Your task to perform on an android device: see creations saved in the google photos Image 0: 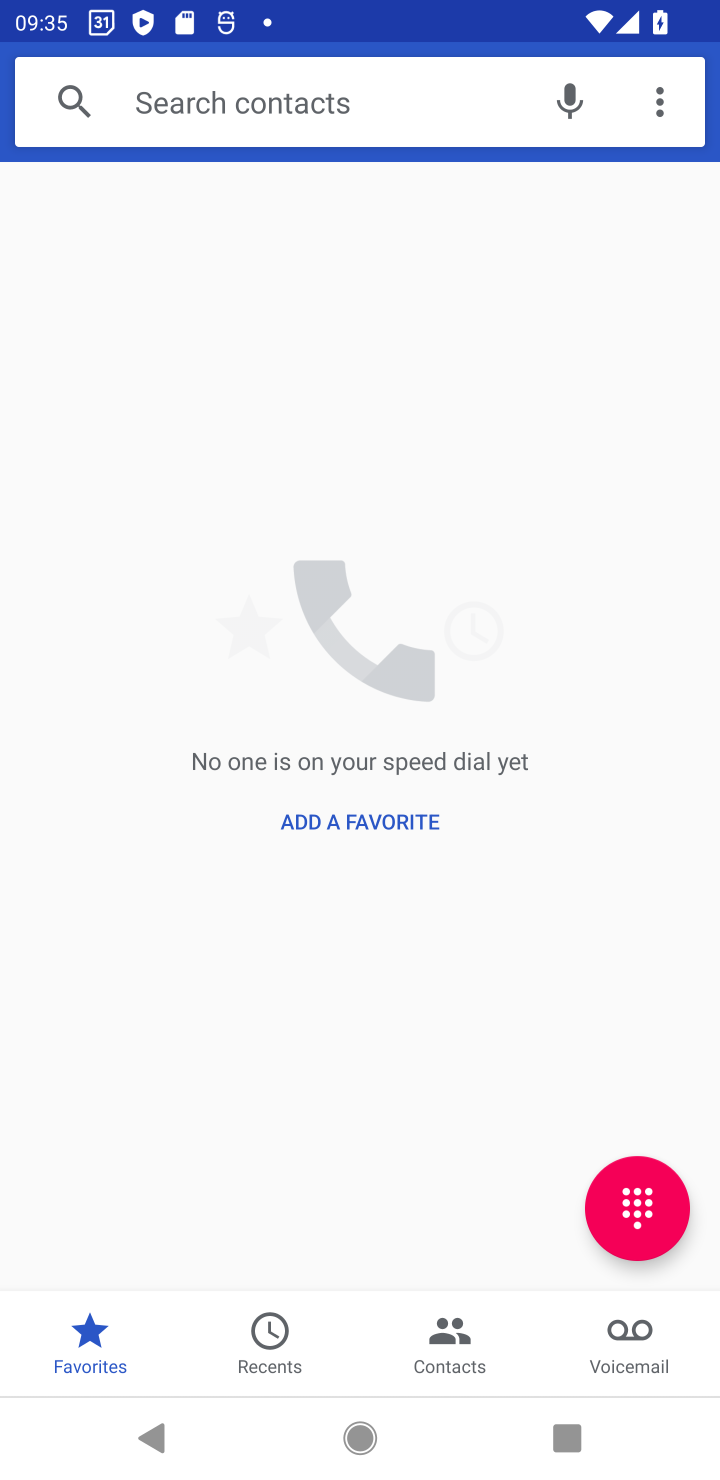
Step 0: press home button
Your task to perform on an android device: see creations saved in the google photos Image 1: 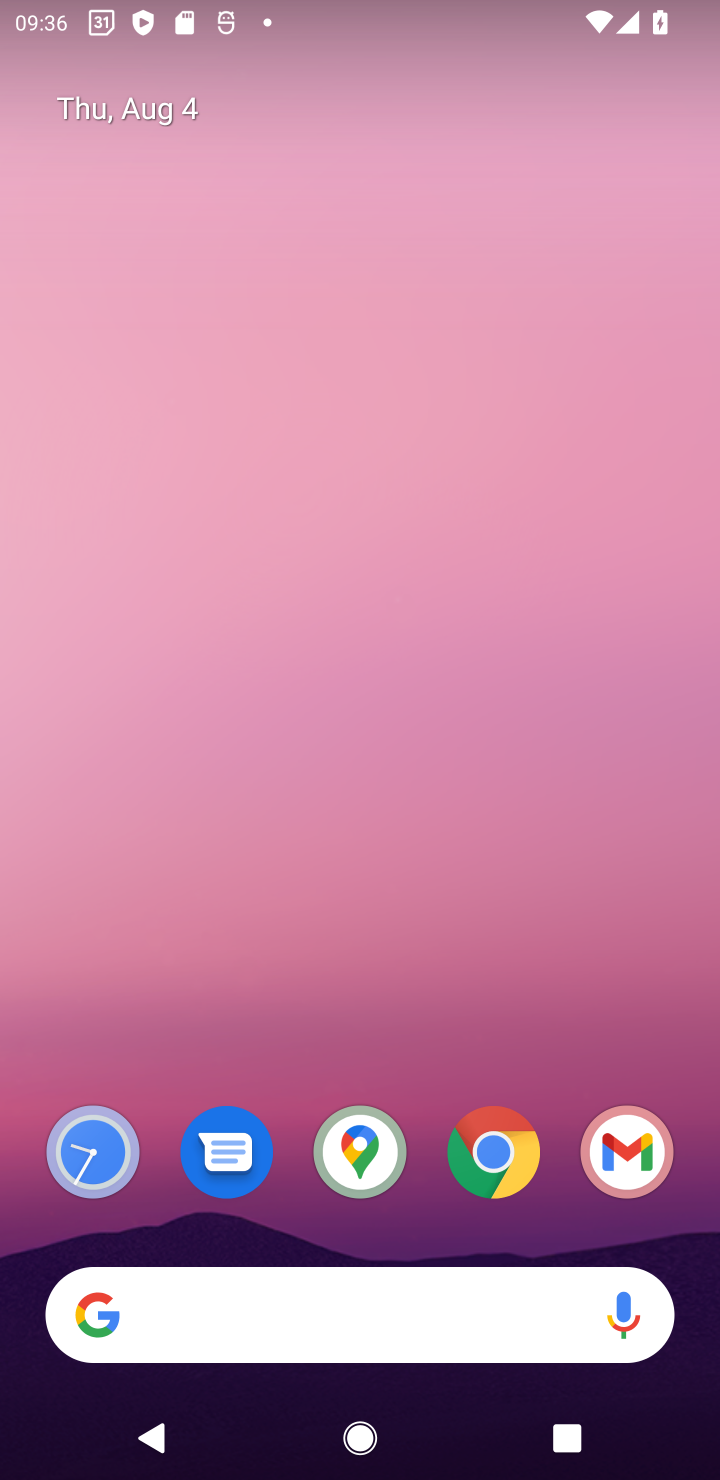
Step 1: drag from (28, 1319) to (369, 351)
Your task to perform on an android device: see creations saved in the google photos Image 2: 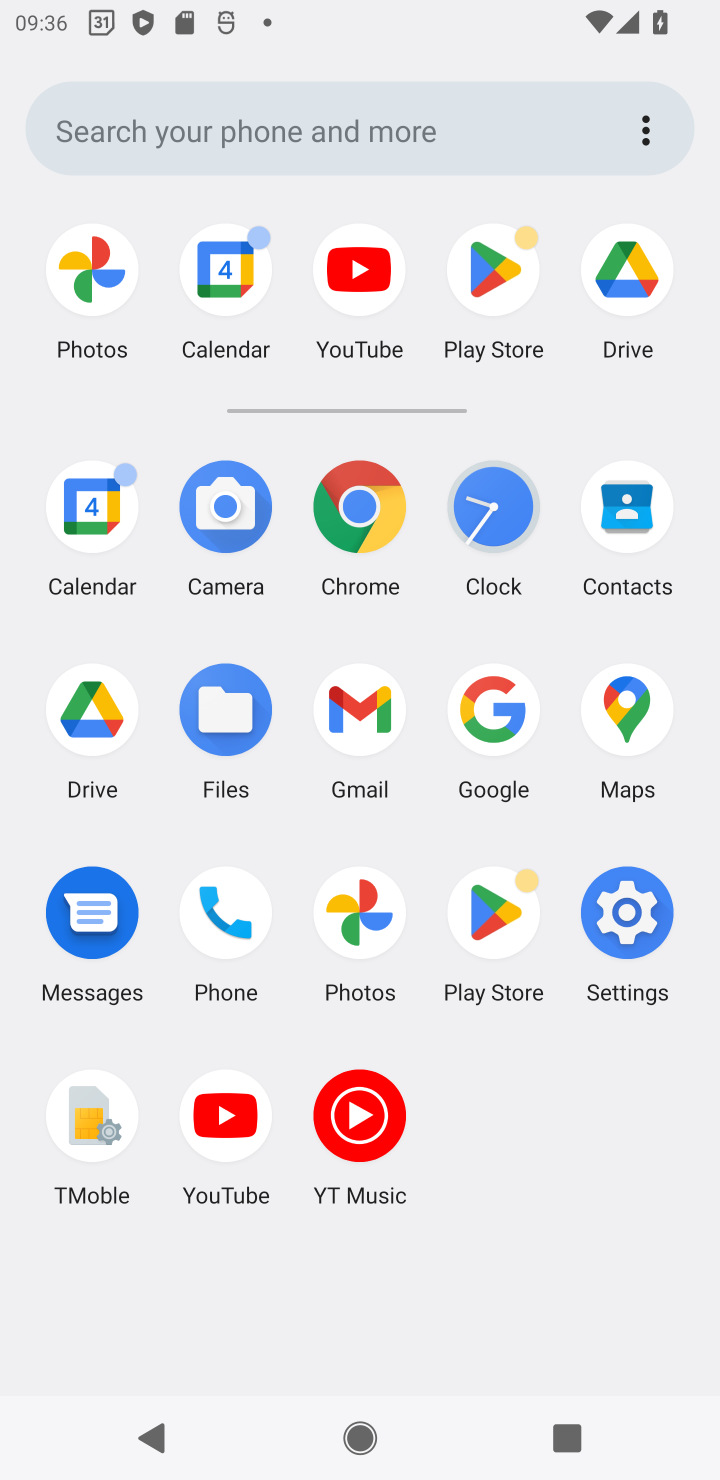
Step 2: click (357, 910)
Your task to perform on an android device: see creations saved in the google photos Image 3: 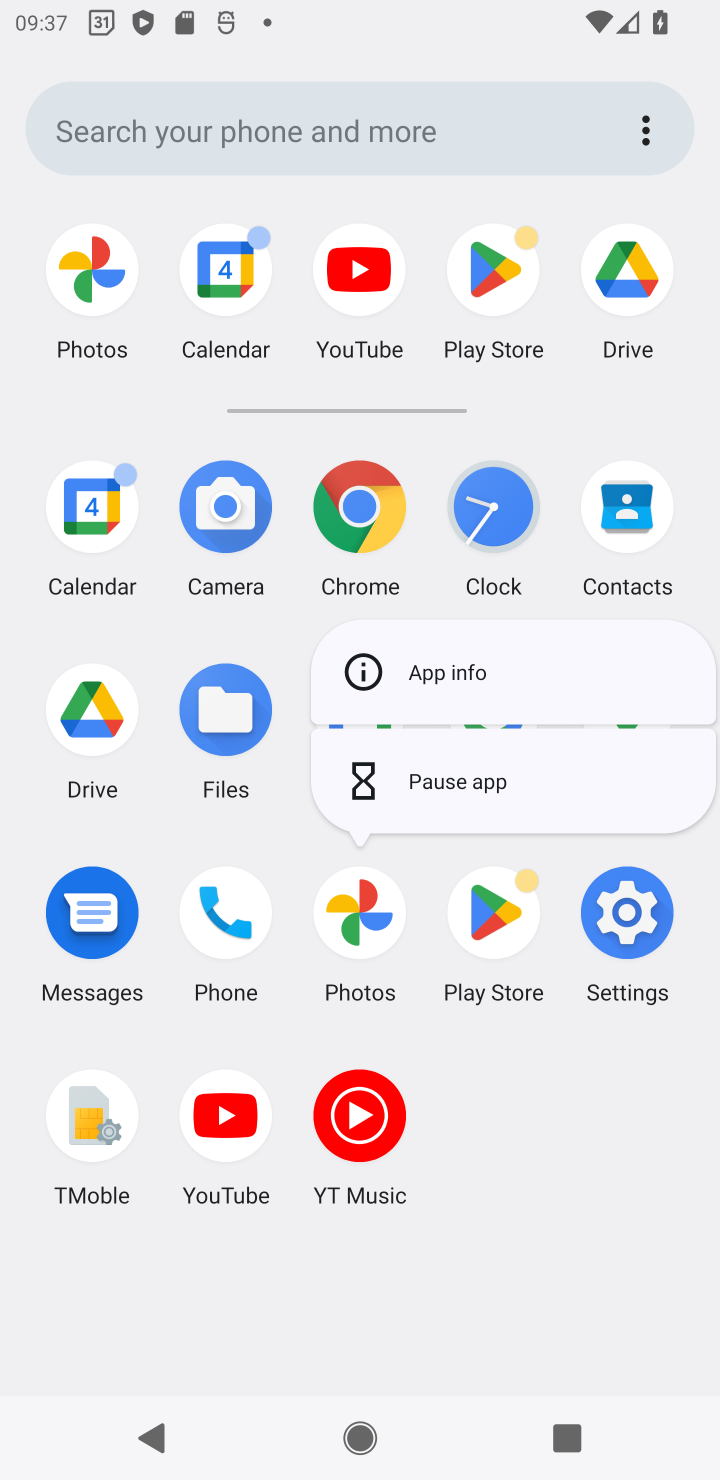
Step 3: click (340, 927)
Your task to perform on an android device: see creations saved in the google photos Image 4: 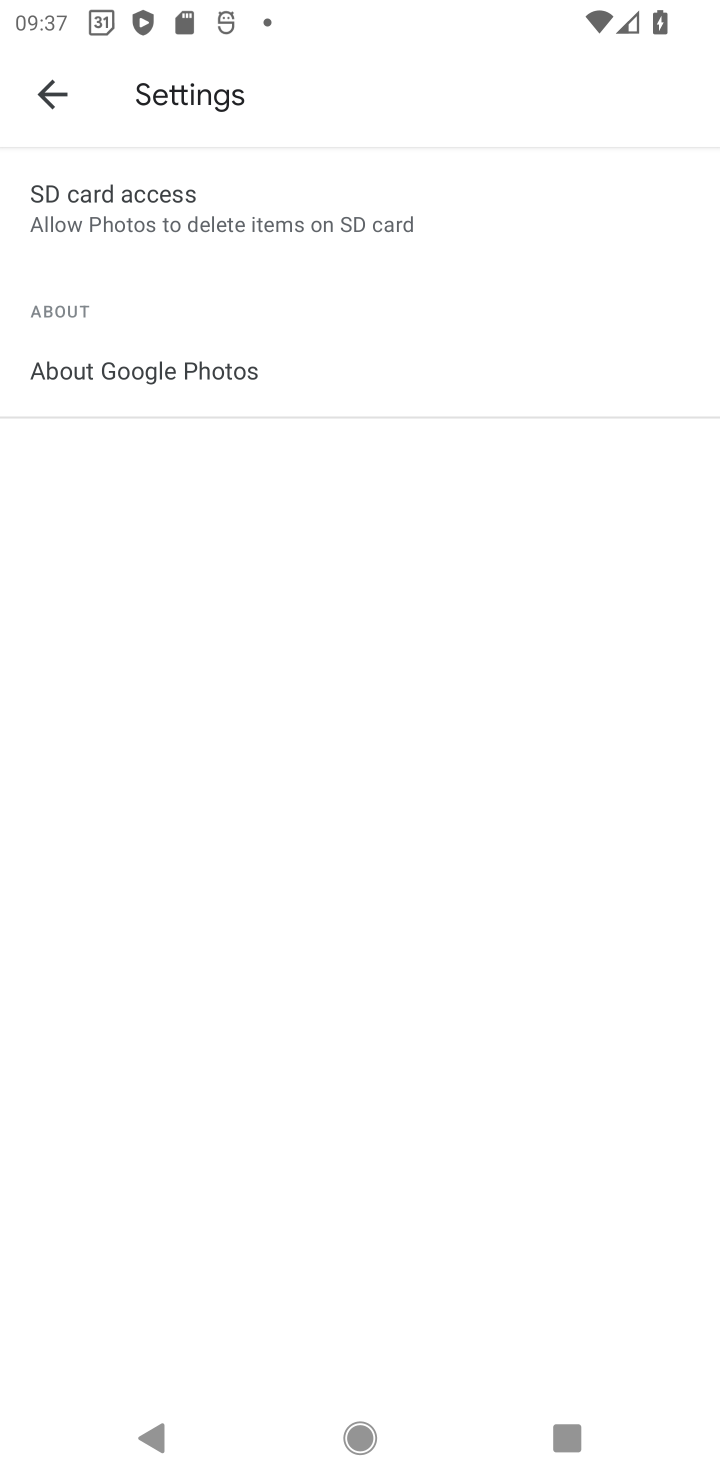
Step 4: press home button
Your task to perform on an android device: see creations saved in the google photos Image 5: 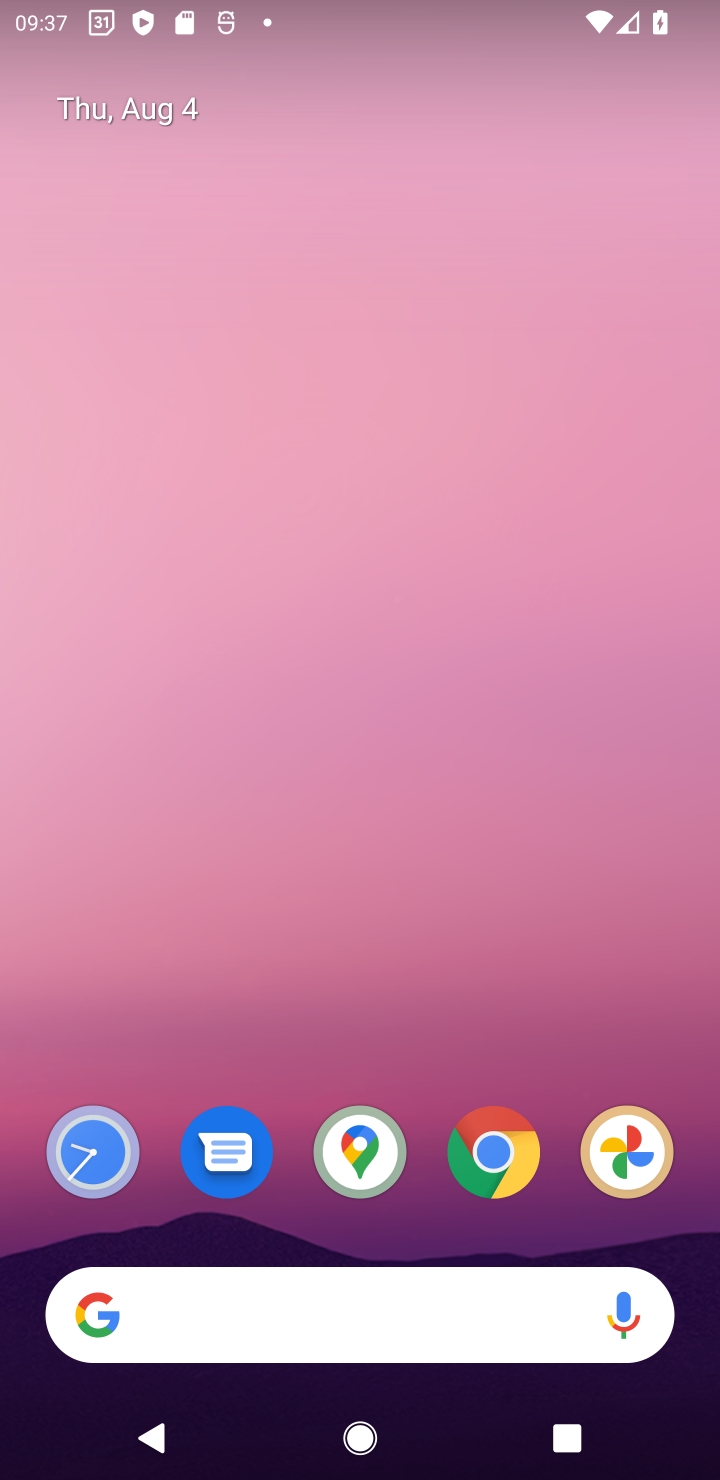
Step 5: drag from (160, 713) to (411, 265)
Your task to perform on an android device: see creations saved in the google photos Image 6: 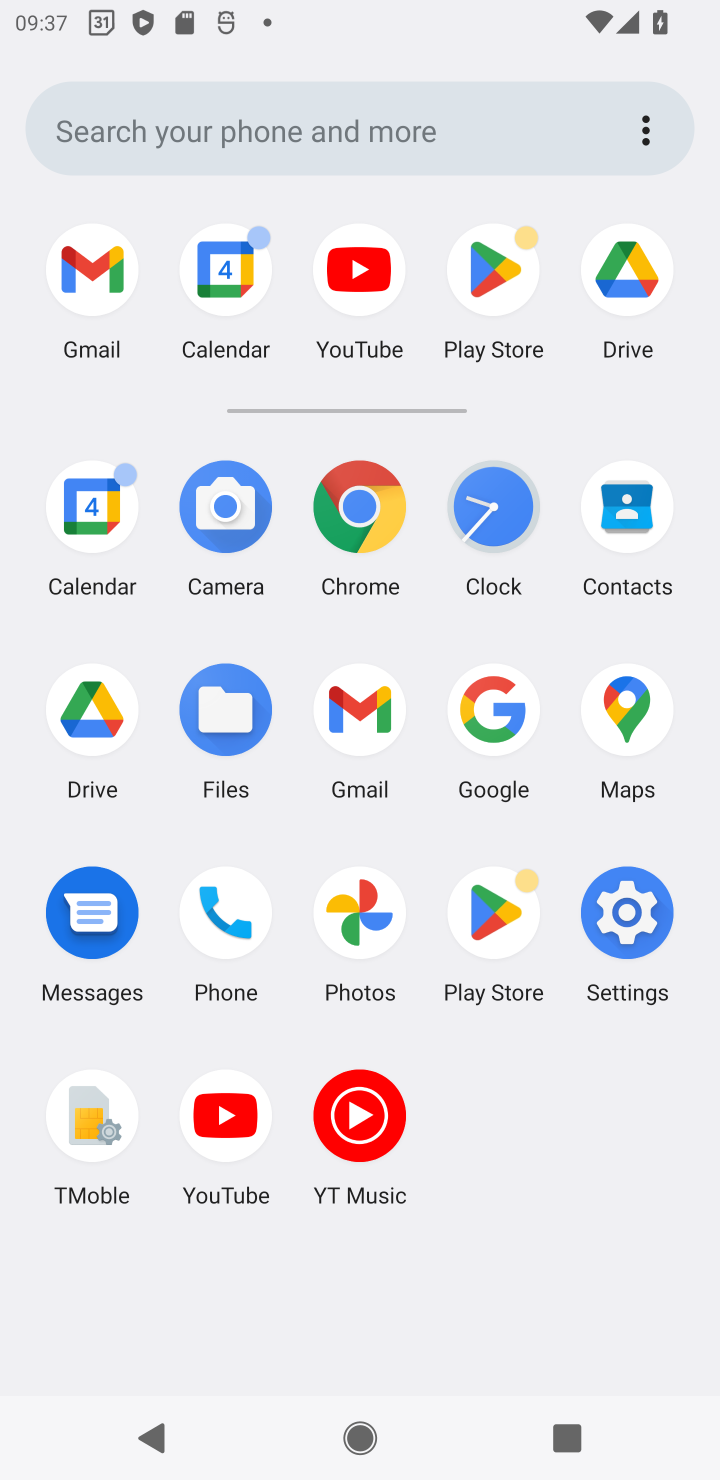
Step 6: click (366, 921)
Your task to perform on an android device: see creations saved in the google photos Image 7: 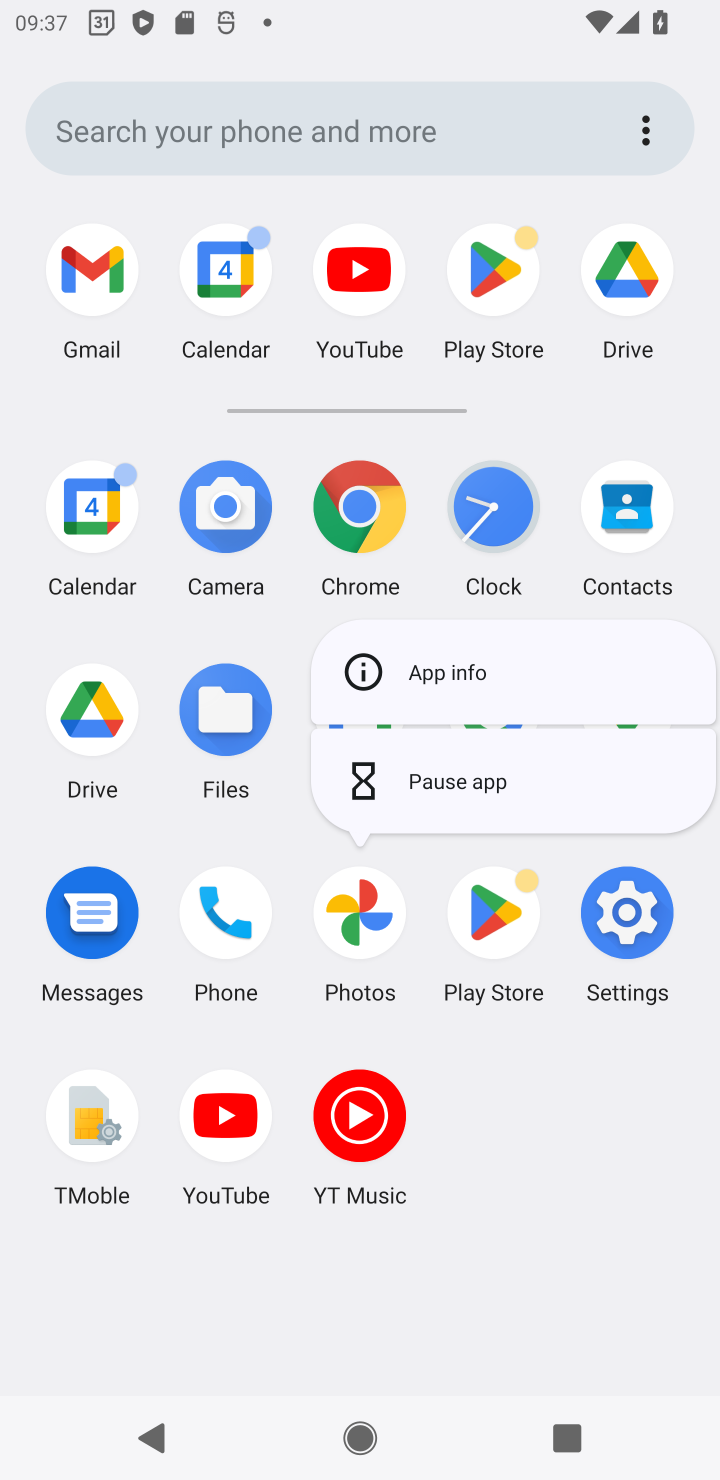
Step 7: click (366, 921)
Your task to perform on an android device: see creations saved in the google photos Image 8: 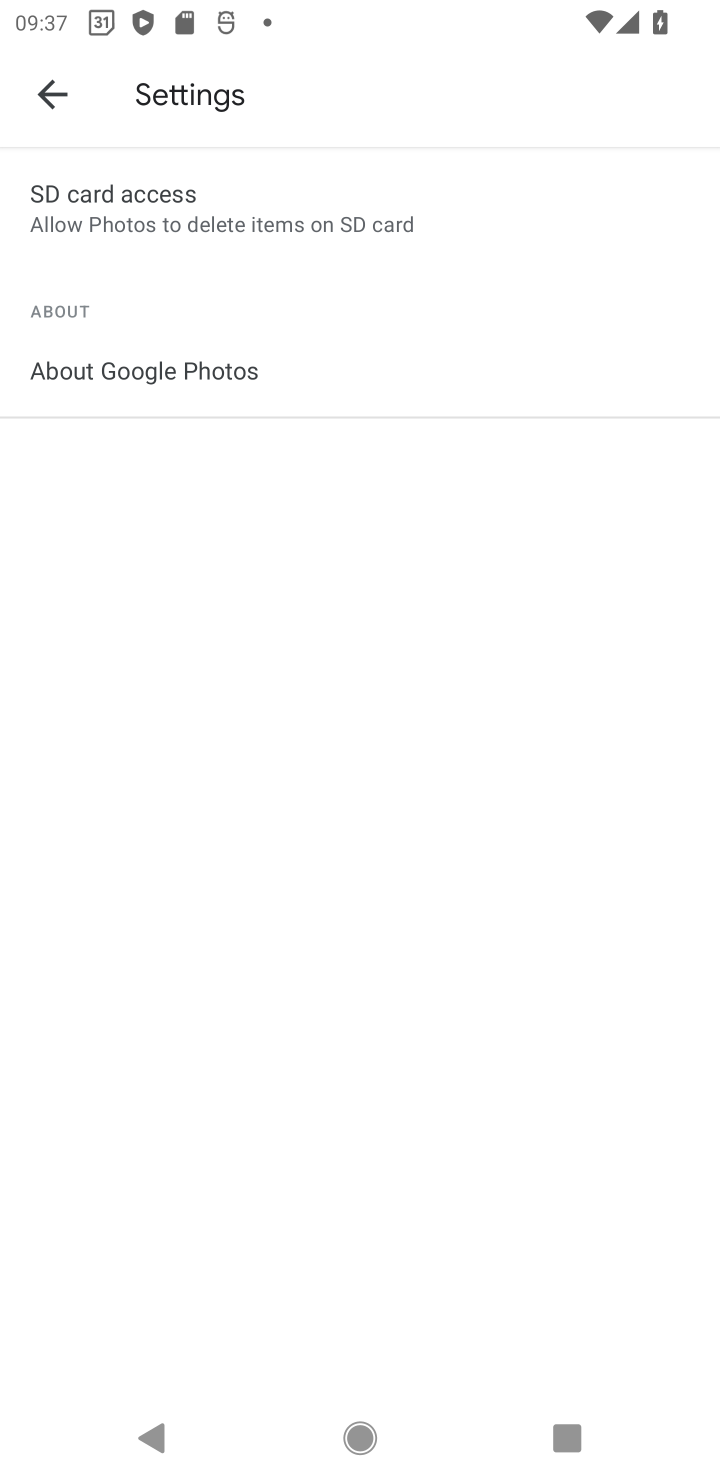
Step 8: task complete